Your task to perform on an android device: turn pop-ups off in chrome Image 0: 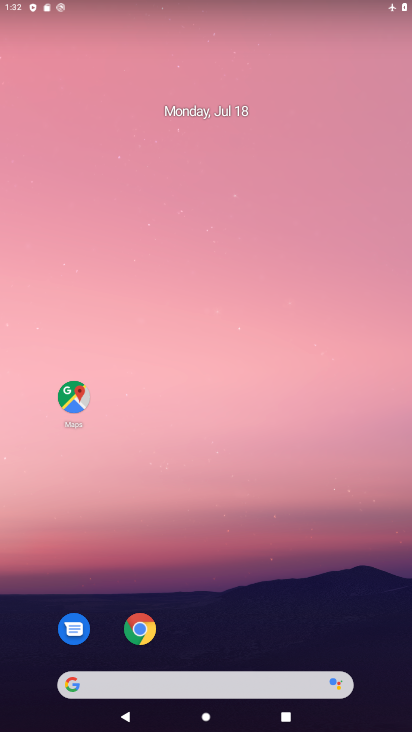
Step 0: click (144, 633)
Your task to perform on an android device: turn pop-ups off in chrome Image 1: 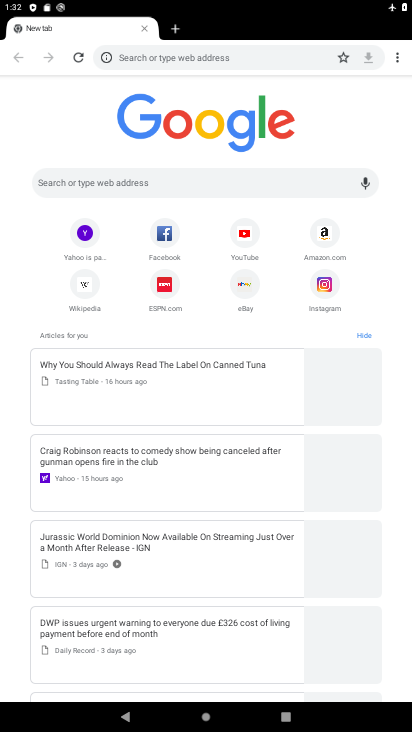
Step 1: click (399, 57)
Your task to perform on an android device: turn pop-ups off in chrome Image 2: 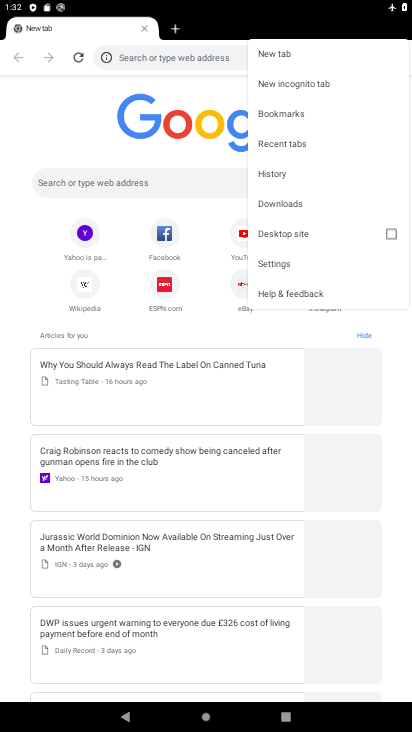
Step 2: click (284, 266)
Your task to perform on an android device: turn pop-ups off in chrome Image 3: 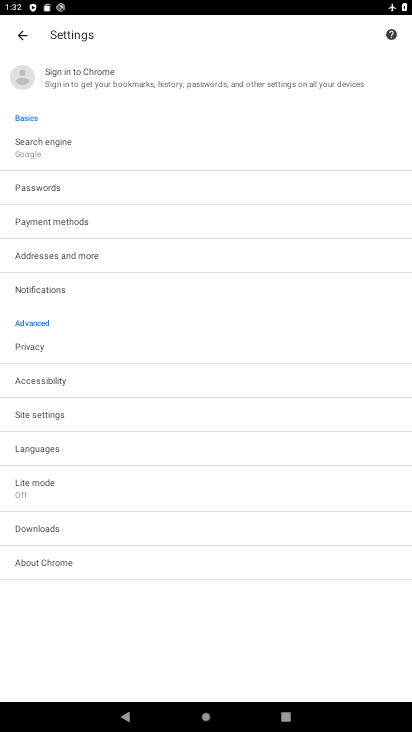
Step 3: task complete